Your task to perform on an android device: Search for pizza restaurants on Maps Image 0: 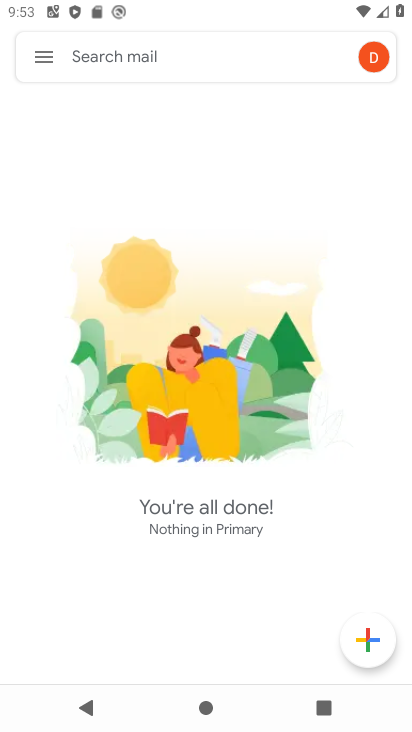
Step 0: press home button
Your task to perform on an android device: Search for pizza restaurants on Maps Image 1: 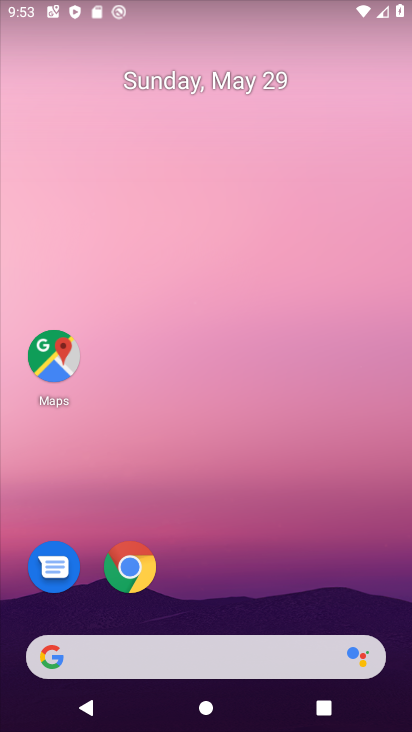
Step 1: click (55, 354)
Your task to perform on an android device: Search for pizza restaurants on Maps Image 2: 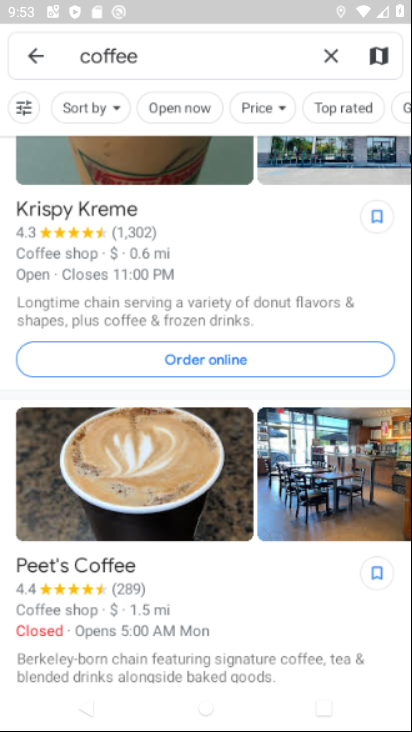
Step 2: click (327, 55)
Your task to perform on an android device: Search for pizza restaurants on Maps Image 3: 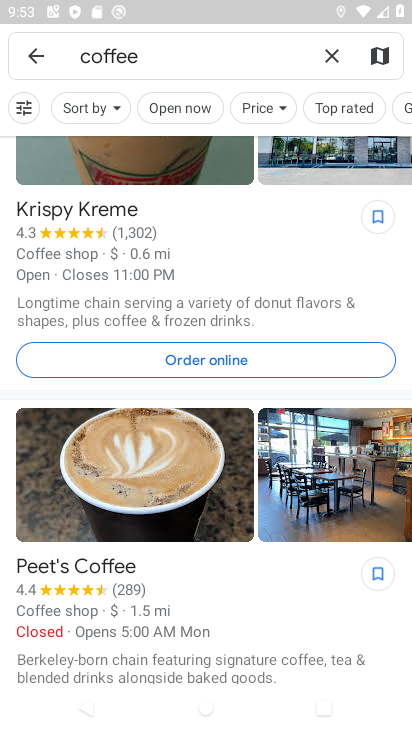
Step 3: click (327, 55)
Your task to perform on an android device: Search for pizza restaurants on Maps Image 4: 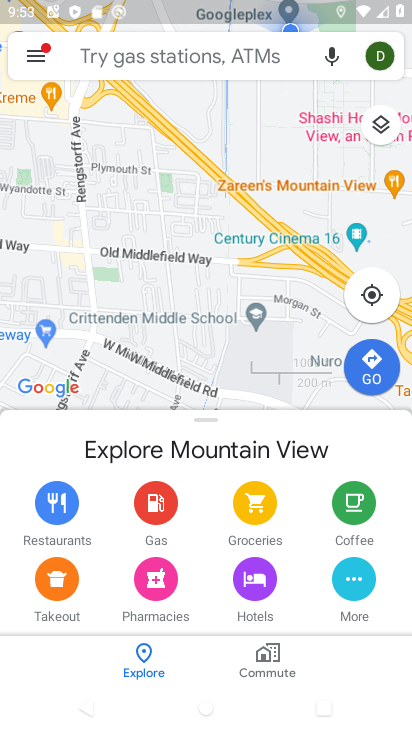
Step 4: click (155, 60)
Your task to perform on an android device: Search for pizza restaurants on Maps Image 5: 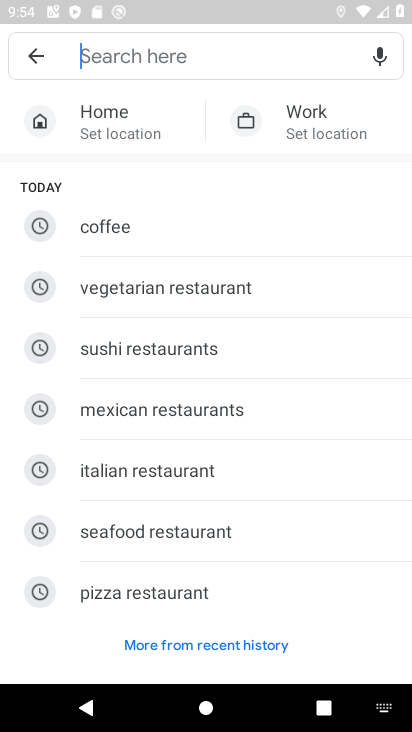
Step 5: type "pizza resstaurants"
Your task to perform on an android device: Search for pizza restaurants on Maps Image 6: 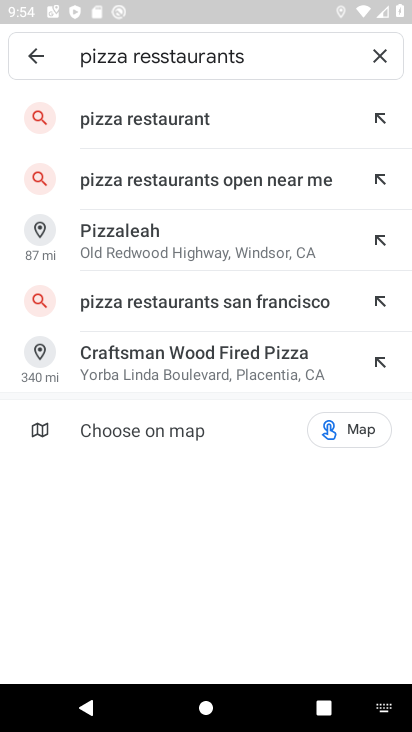
Step 6: click (173, 107)
Your task to perform on an android device: Search for pizza restaurants on Maps Image 7: 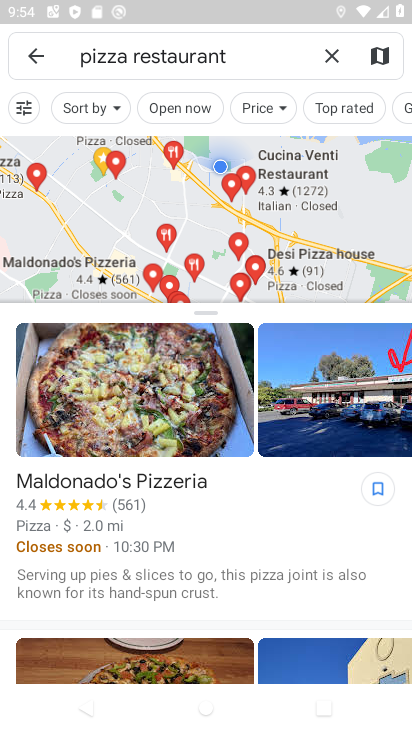
Step 7: task complete